Your task to perform on an android device: manage bookmarks in the chrome app Image 0: 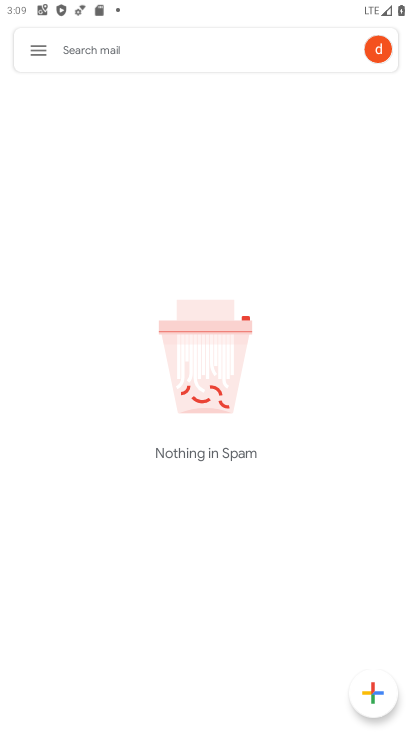
Step 0: press back button
Your task to perform on an android device: manage bookmarks in the chrome app Image 1: 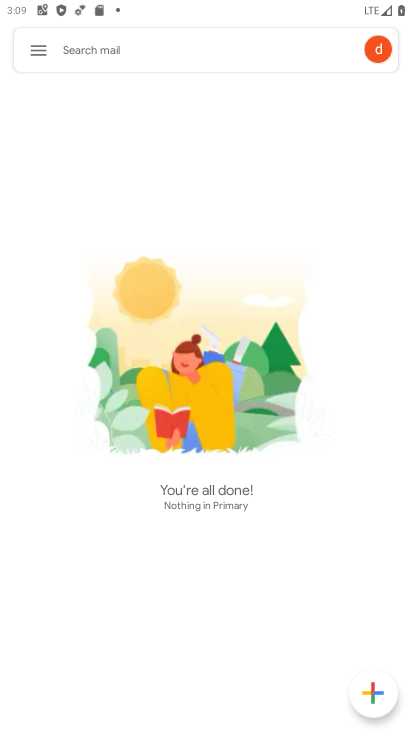
Step 1: press back button
Your task to perform on an android device: manage bookmarks in the chrome app Image 2: 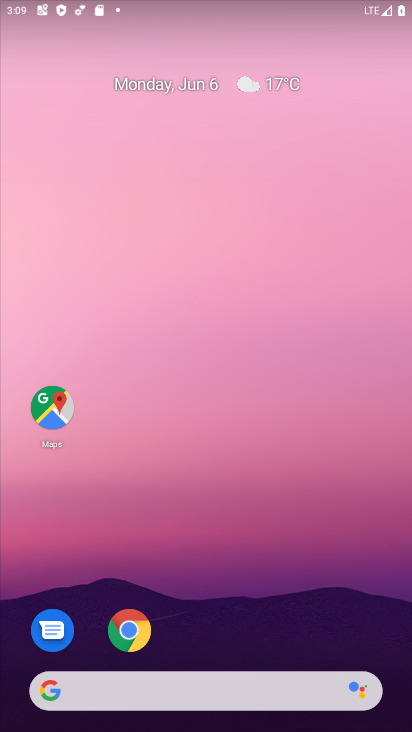
Step 2: click (139, 626)
Your task to perform on an android device: manage bookmarks in the chrome app Image 3: 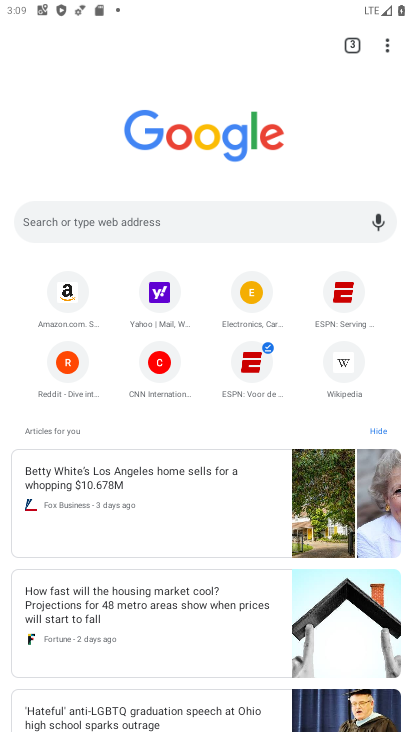
Step 3: drag from (389, 45) to (263, 186)
Your task to perform on an android device: manage bookmarks in the chrome app Image 4: 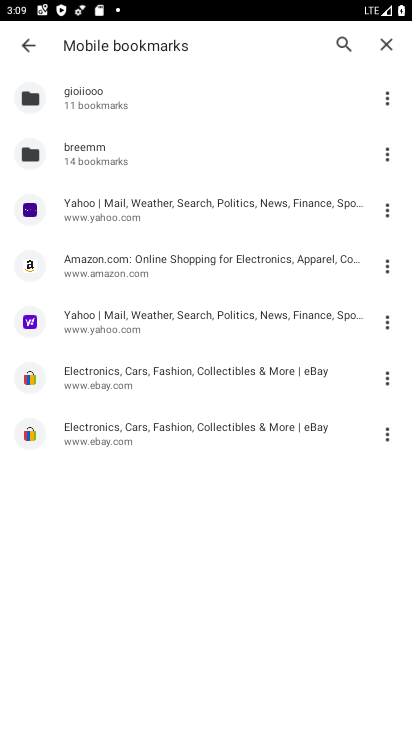
Step 4: click (389, 213)
Your task to perform on an android device: manage bookmarks in the chrome app Image 5: 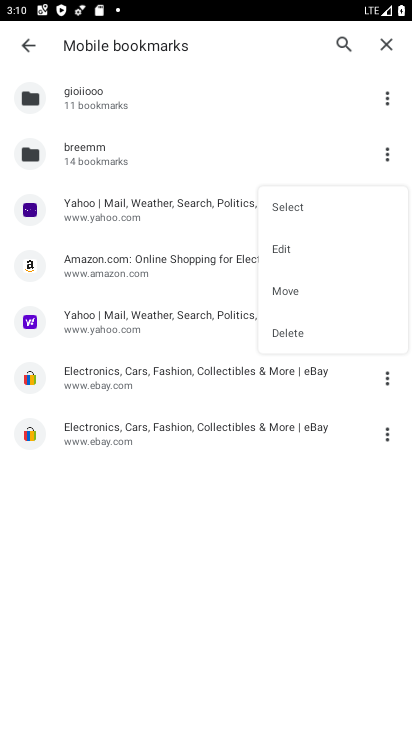
Step 5: click (301, 321)
Your task to perform on an android device: manage bookmarks in the chrome app Image 6: 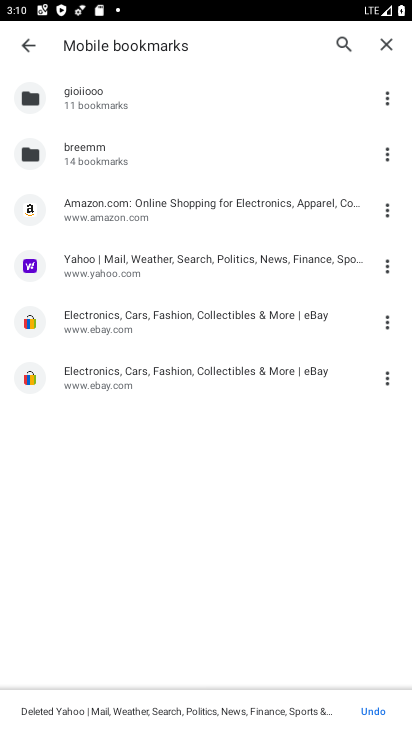
Step 6: task complete